Your task to perform on an android device: check android version Image 0: 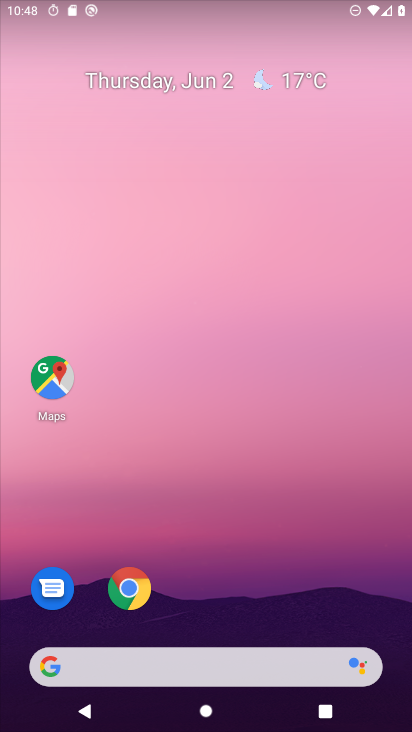
Step 0: drag from (258, 402) to (269, 327)
Your task to perform on an android device: check android version Image 1: 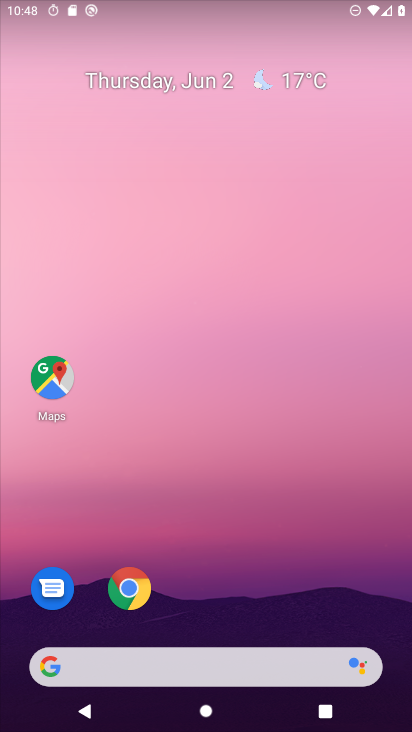
Step 1: drag from (260, 471) to (295, 262)
Your task to perform on an android device: check android version Image 2: 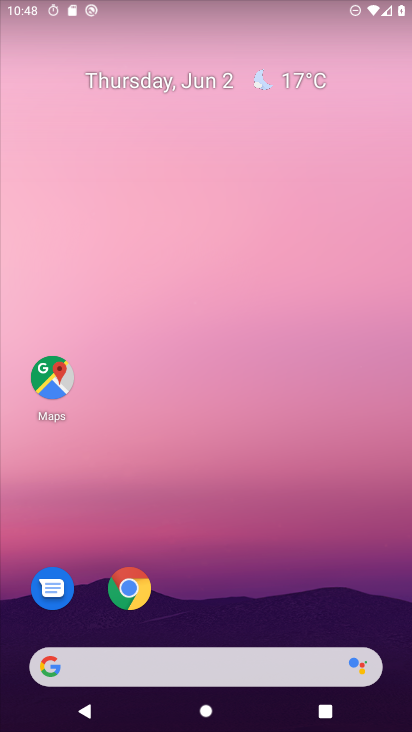
Step 2: drag from (251, 634) to (302, 256)
Your task to perform on an android device: check android version Image 3: 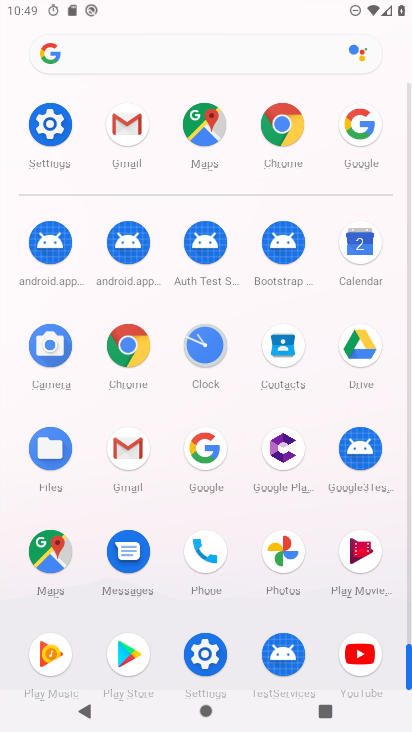
Step 3: click (59, 137)
Your task to perform on an android device: check android version Image 4: 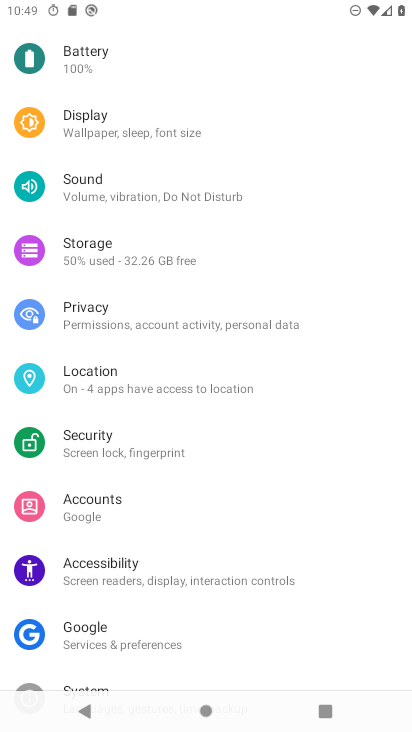
Step 4: drag from (207, 410) to (232, 232)
Your task to perform on an android device: check android version Image 5: 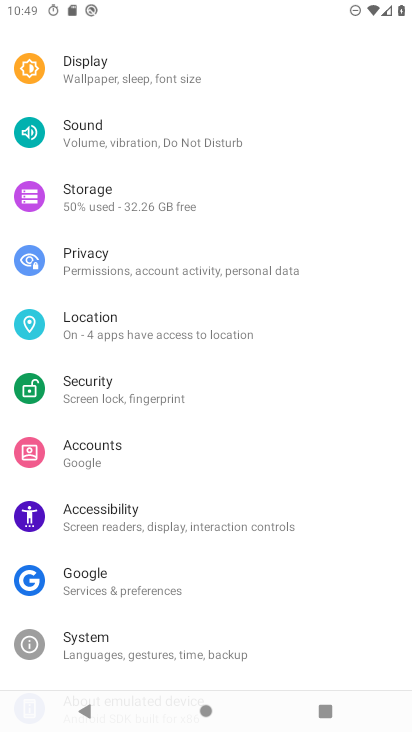
Step 5: drag from (199, 546) to (253, 236)
Your task to perform on an android device: check android version Image 6: 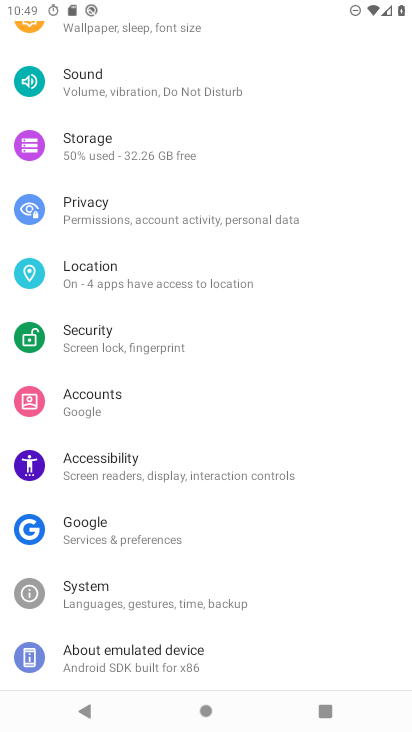
Step 6: click (176, 656)
Your task to perform on an android device: check android version Image 7: 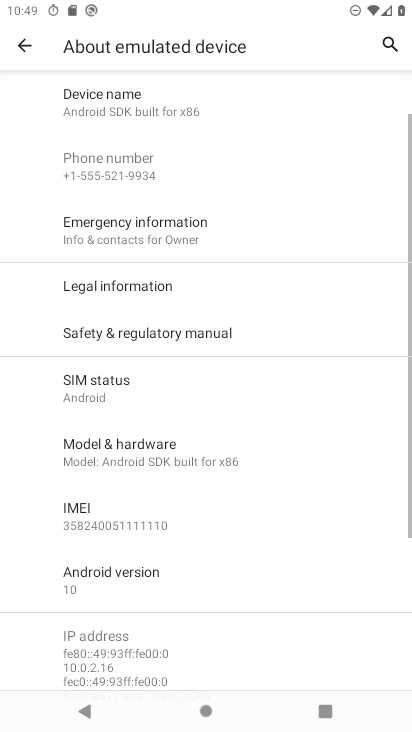
Step 7: click (142, 579)
Your task to perform on an android device: check android version Image 8: 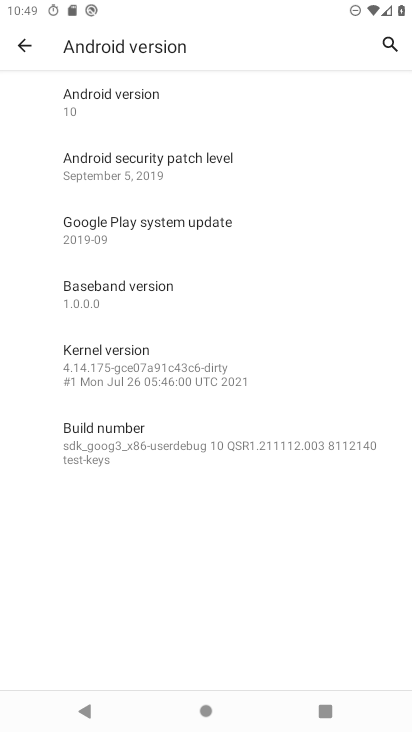
Step 8: click (204, 105)
Your task to perform on an android device: check android version Image 9: 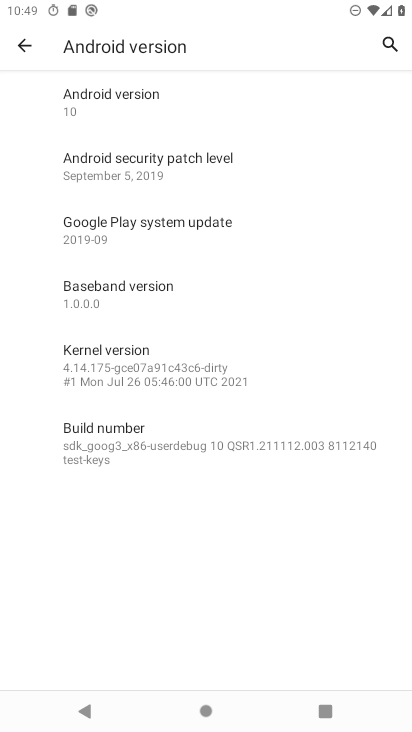
Step 9: task complete